Your task to perform on an android device: toggle notification dots Image 0: 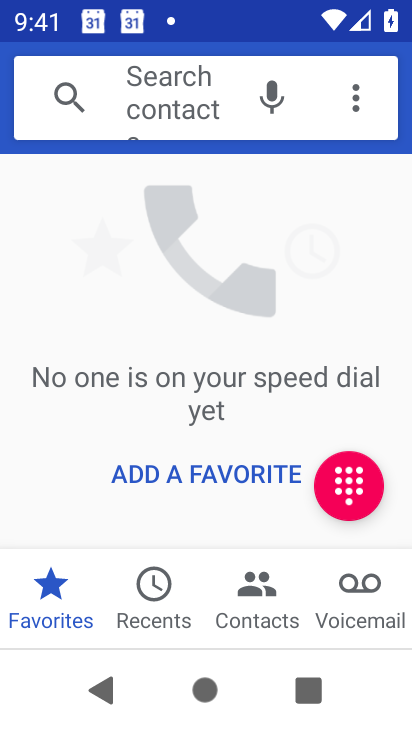
Step 0: press home button
Your task to perform on an android device: toggle notification dots Image 1: 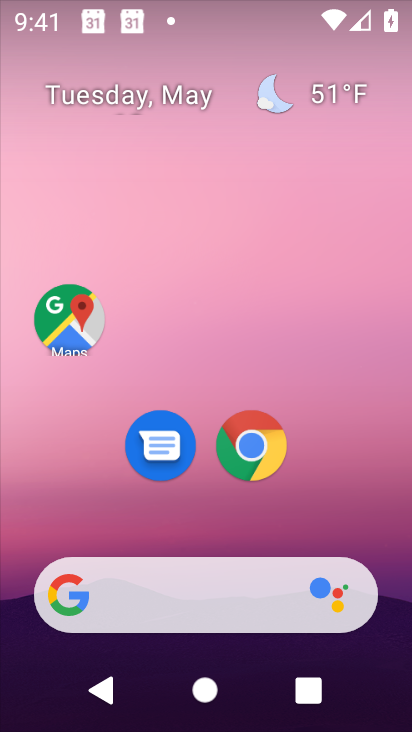
Step 1: drag from (224, 576) to (10, 384)
Your task to perform on an android device: toggle notification dots Image 2: 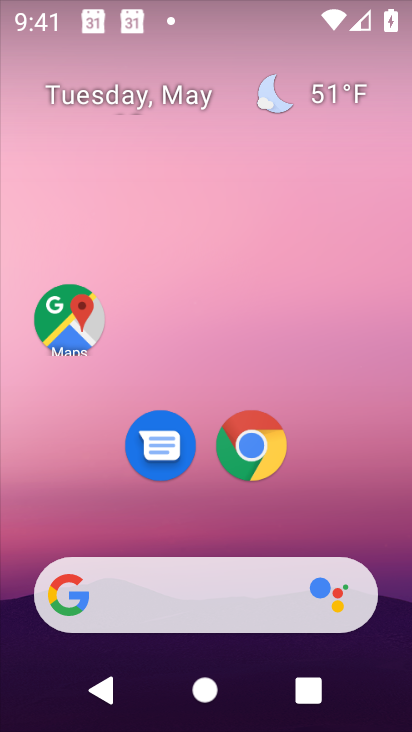
Step 2: drag from (213, 561) to (181, 2)
Your task to perform on an android device: toggle notification dots Image 3: 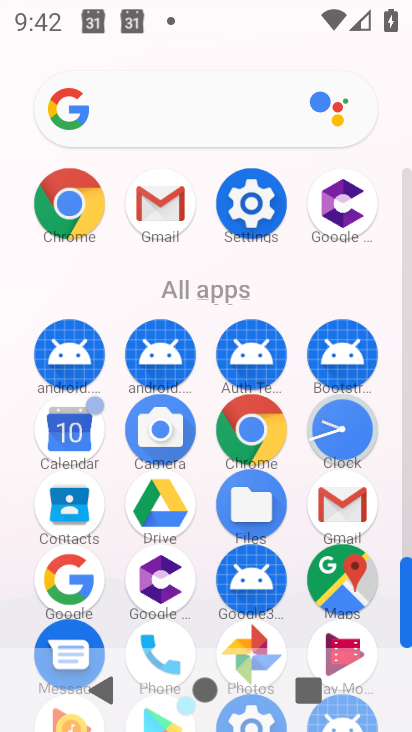
Step 3: click (243, 210)
Your task to perform on an android device: toggle notification dots Image 4: 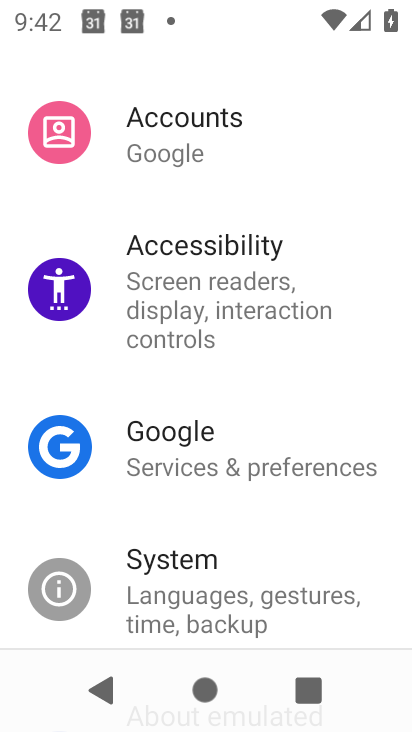
Step 4: drag from (171, 166) to (202, 642)
Your task to perform on an android device: toggle notification dots Image 5: 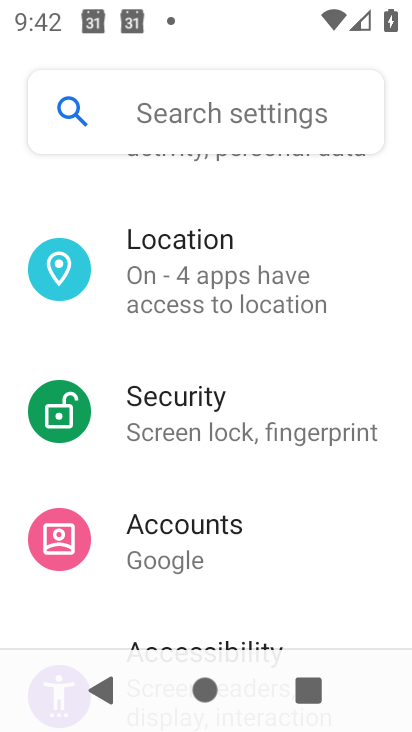
Step 5: drag from (195, 289) to (240, 723)
Your task to perform on an android device: toggle notification dots Image 6: 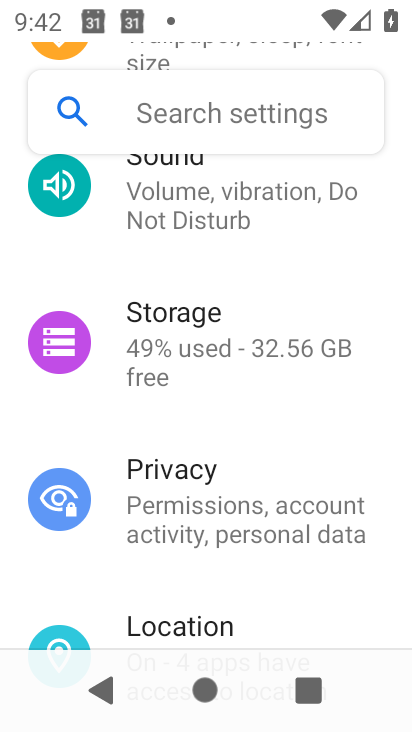
Step 6: drag from (178, 252) to (213, 584)
Your task to perform on an android device: toggle notification dots Image 7: 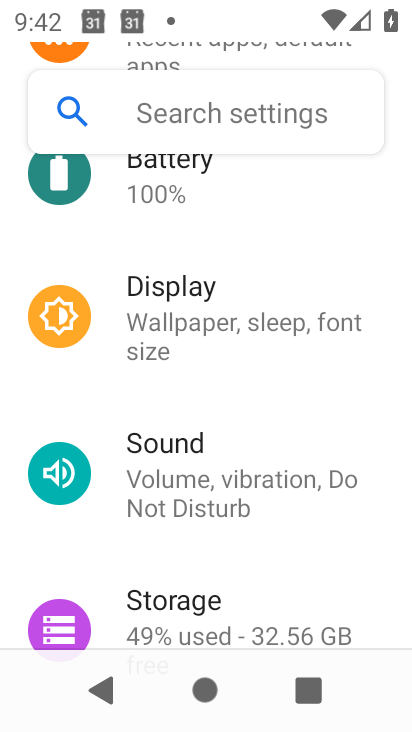
Step 7: drag from (176, 219) to (203, 515)
Your task to perform on an android device: toggle notification dots Image 8: 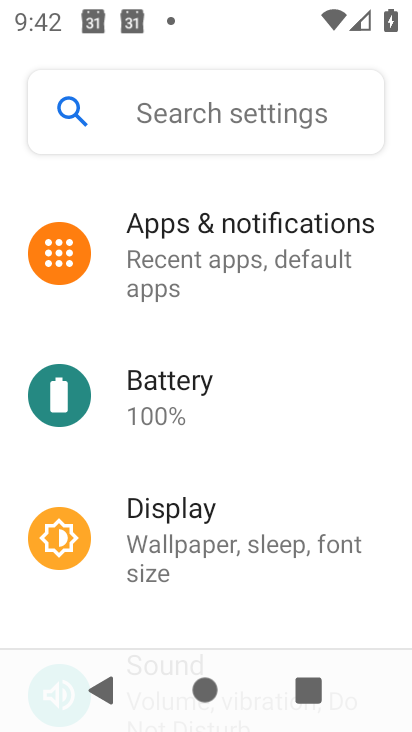
Step 8: click (180, 265)
Your task to perform on an android device: toggle notification dots Image 9: 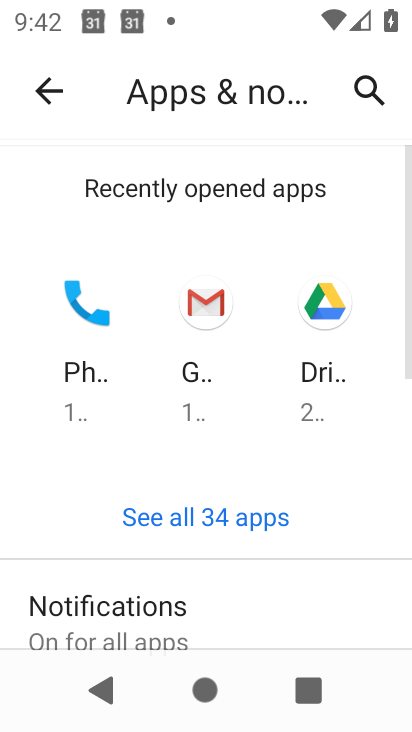
Step 9: drag from (163, 579) to (145, 244)
Your task to perform on an android device: toggle notification dots Image 10: 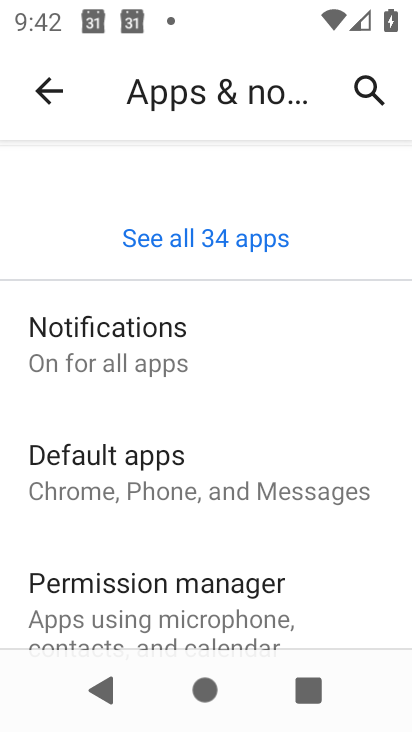
Step 10: click (168, 345)
Your task to perform on an android device: toggle notification dots Image 11: 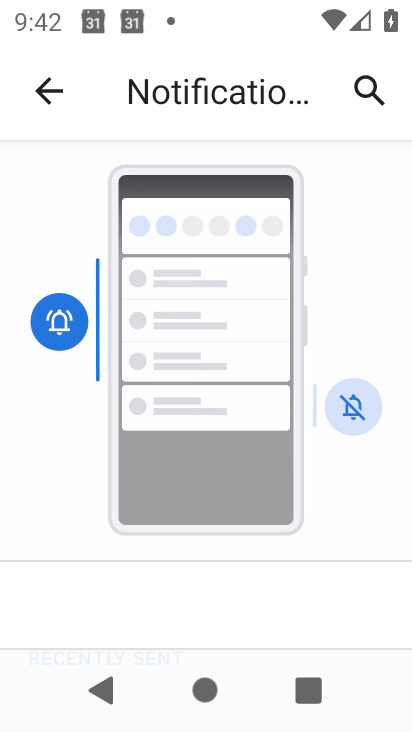
Step 11: drag from (186, 581) to (158, 47)
Your task to perform on an android device: toggle notification dots Image 12: 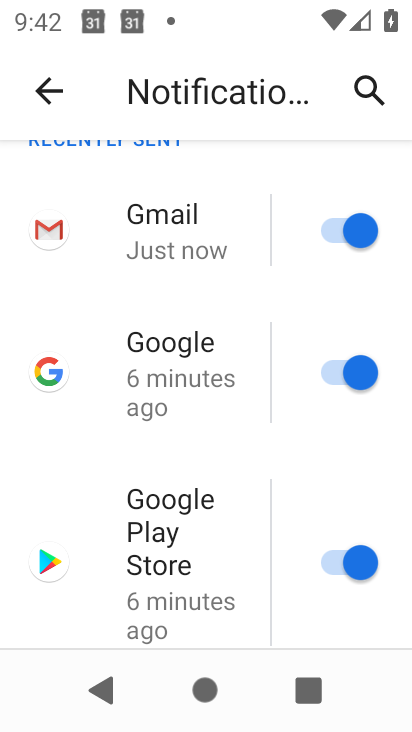
Step 12: drag from (161, 608) to (108, 48)
Your task to perform on an android device: toggle notification dots Image 13: 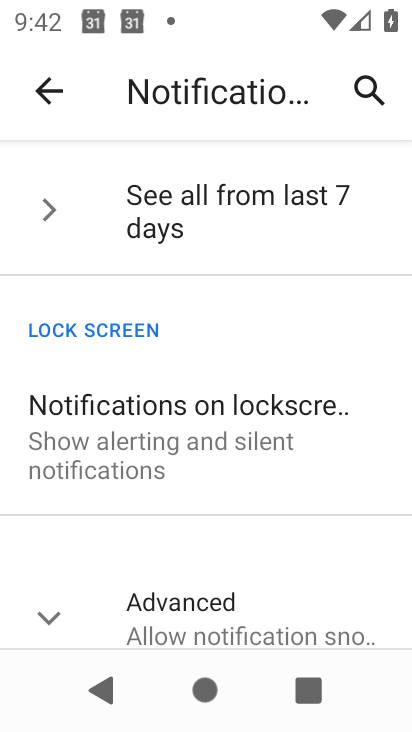
Step 13: drag from (201, 573) to (159, 172)
Your task to perform on an android device: toggle notification dots Image 14: 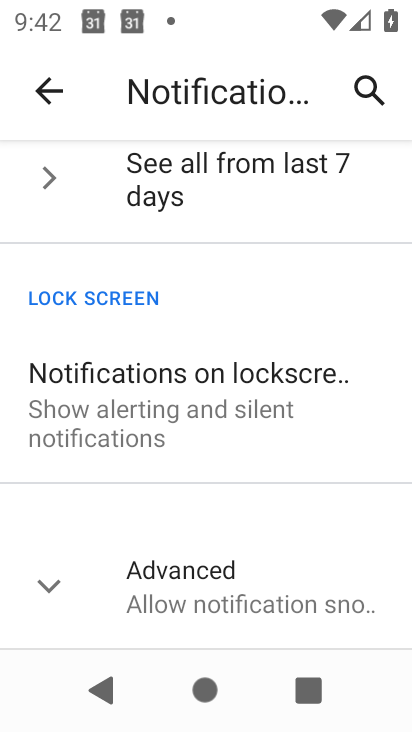
Step 14: click (192, 592)
Your task to perform on an android device: toggle notification dots Image 15: 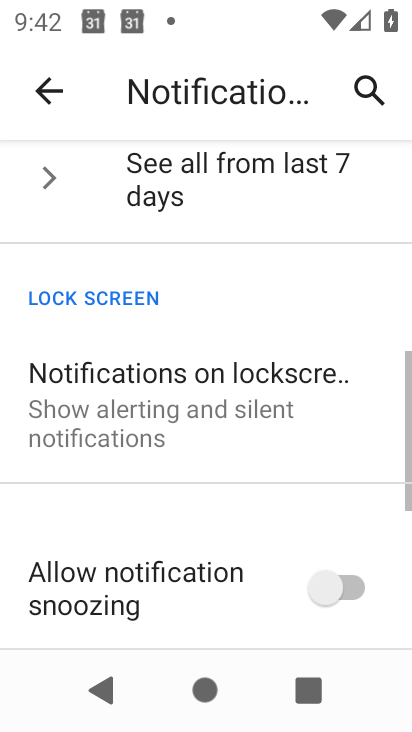
Step 15: drag from (223, 563) to (195, 192)
Your task to perform on an android device: toggle notification dots Image 16: 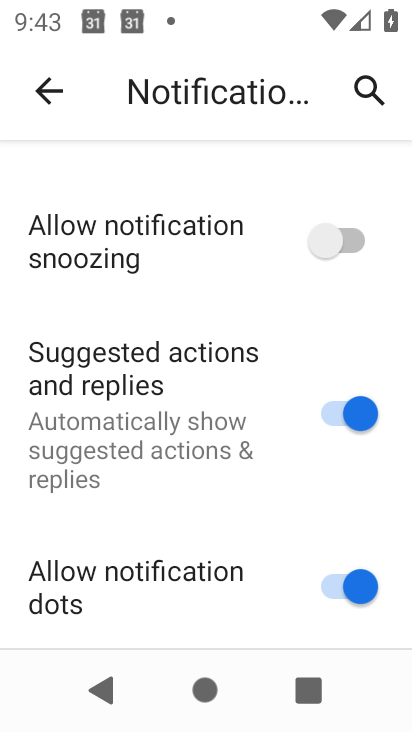
Step 16: click (349, 584)
Your task to perform on an android device: toggle notification dots Image 17: 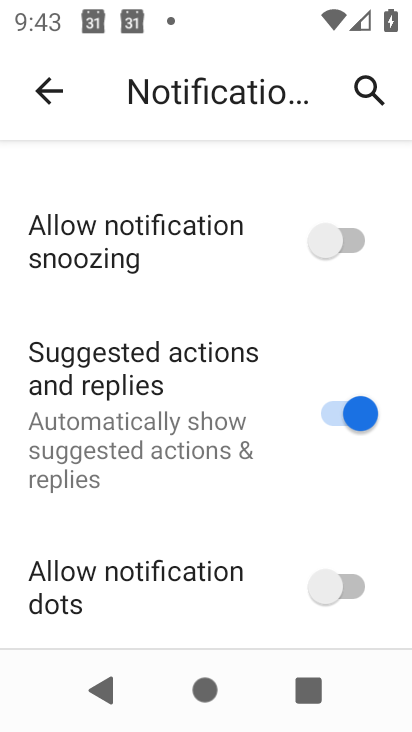
Step 17: task complete